Your task to perform on an android device: toggle translation in the chrome app Image 0: 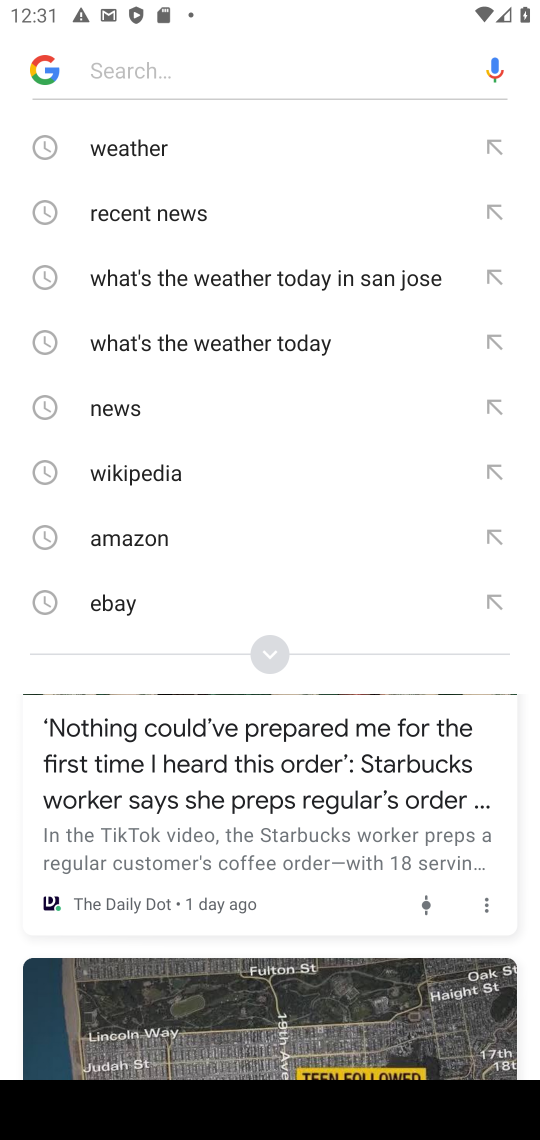
Step 0: press home button
Your task to perform on an android device: toggle translation in the chrome app Image 1: 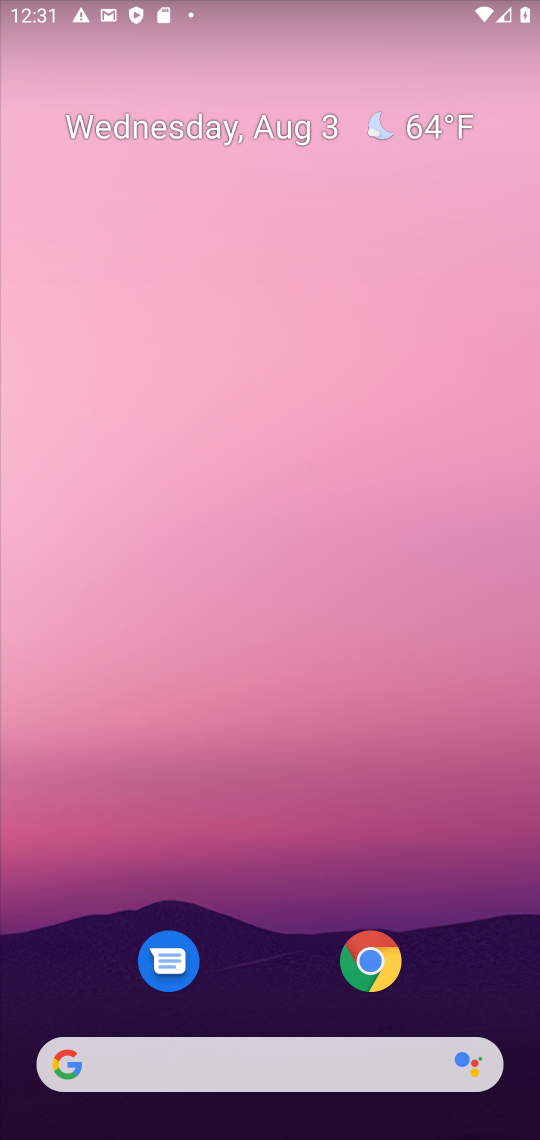
Step 1: click (369, 963)
Your task to perform on an android device: toggle translation in the chrome app Image 2: 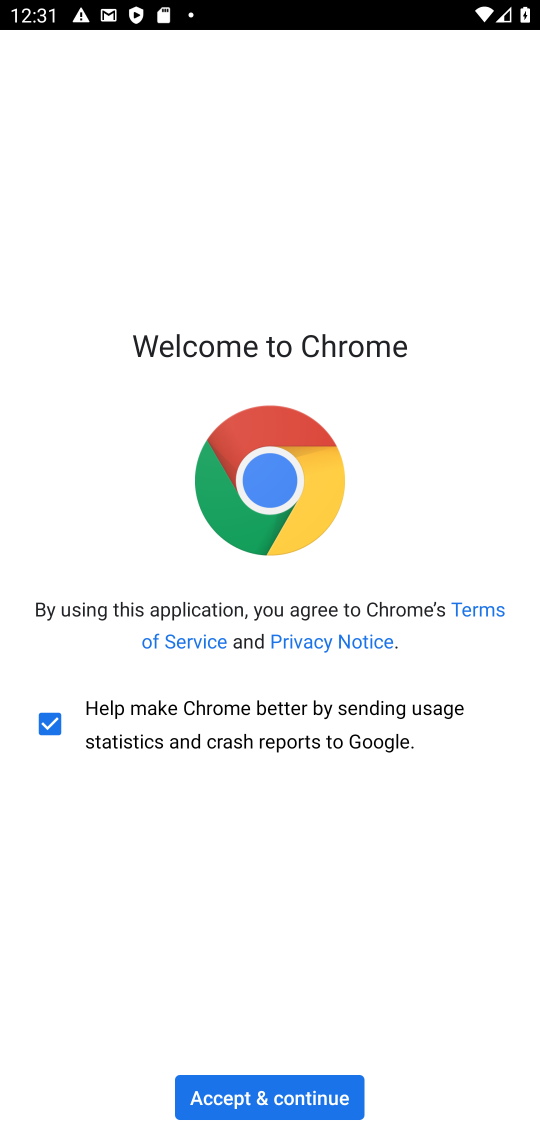
Step 2: click (279, 1101)
Your task to perform on an android device: toggle translation in the chrome app Image 3: 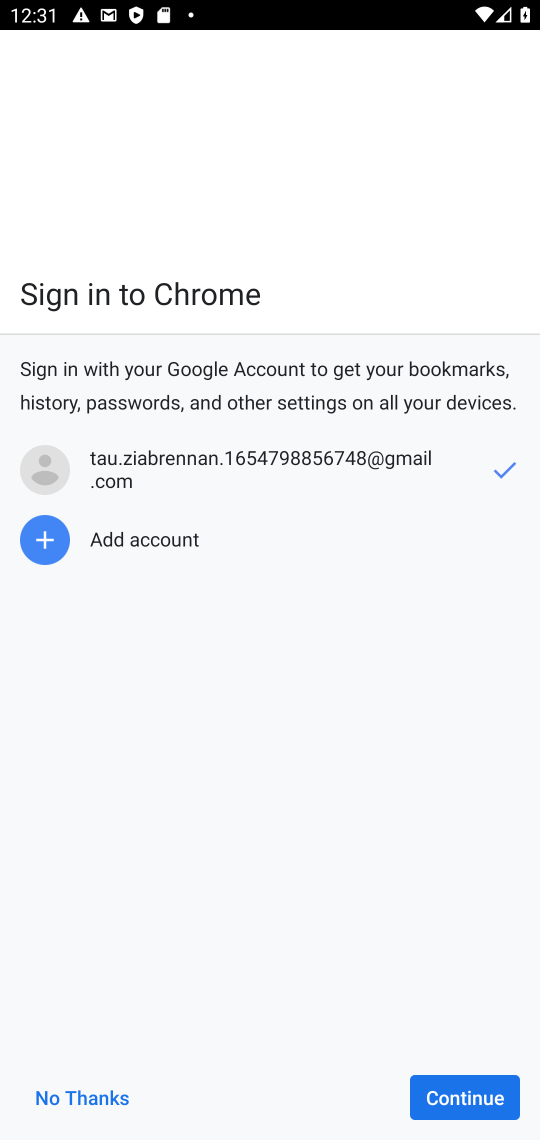
Step 3: click (103, 1110)
Your task to perform on an android device: toggle translation in the chrome app Image 4: 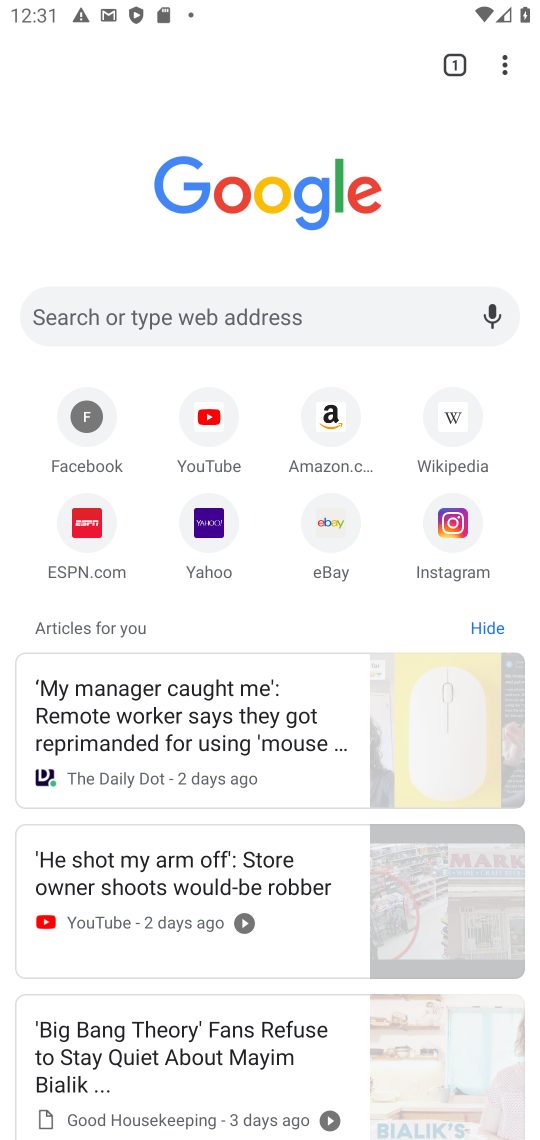
Step 4: drag from (505, 67) to (317, 552)
Your task to perform on an android device: toggle translation in the chrome app Image 5: 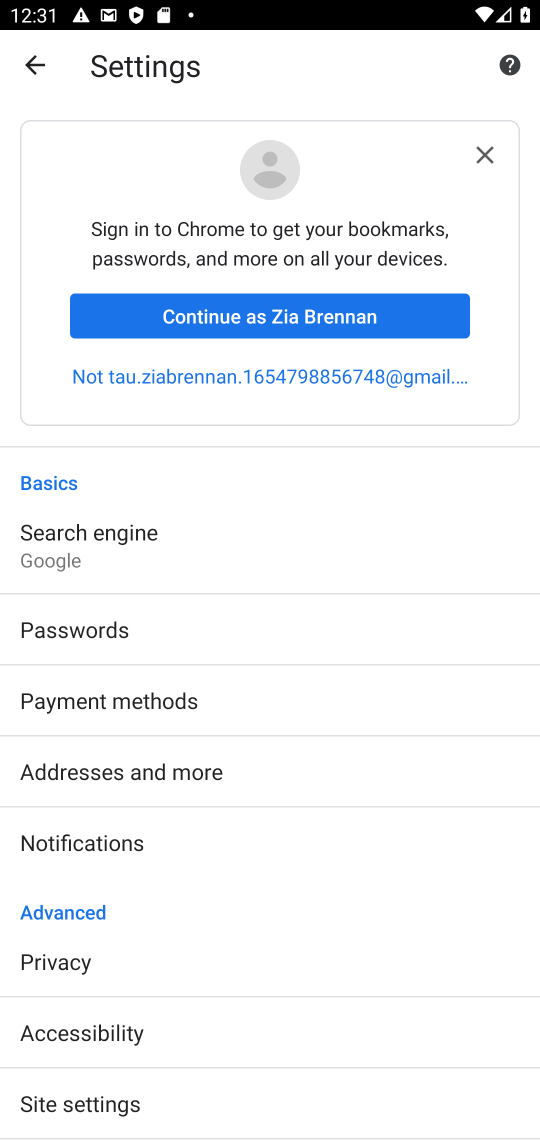
Step 5: drag from (299, 982) to (276, 472)
Your task to perform on an android device: toggle translation in the chrome app Image 6: 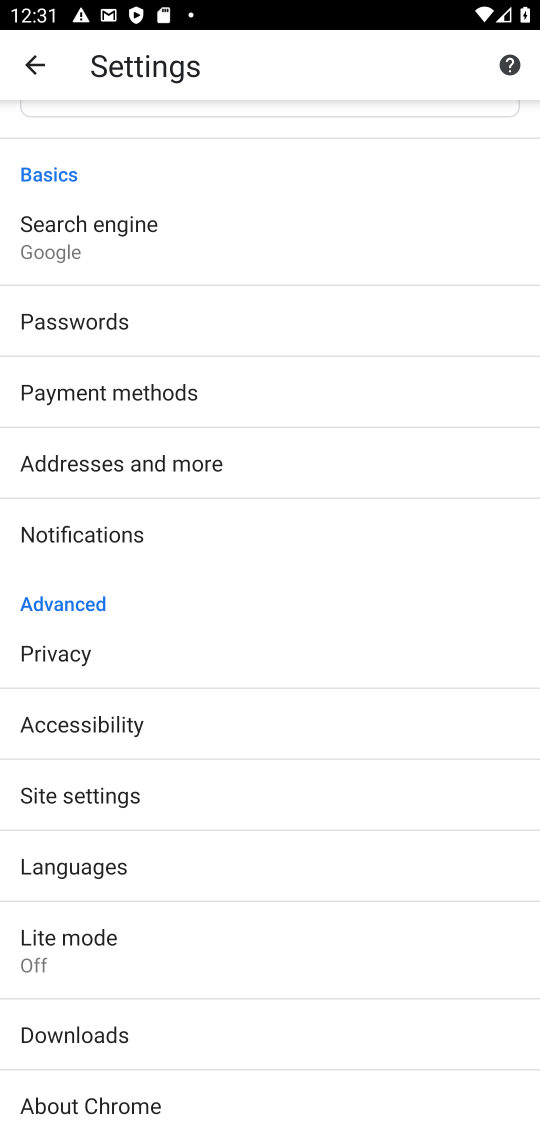
Step 6: click (33, 866)
Your task to perform on an android device: toggle translation in the chrome app Image 7: 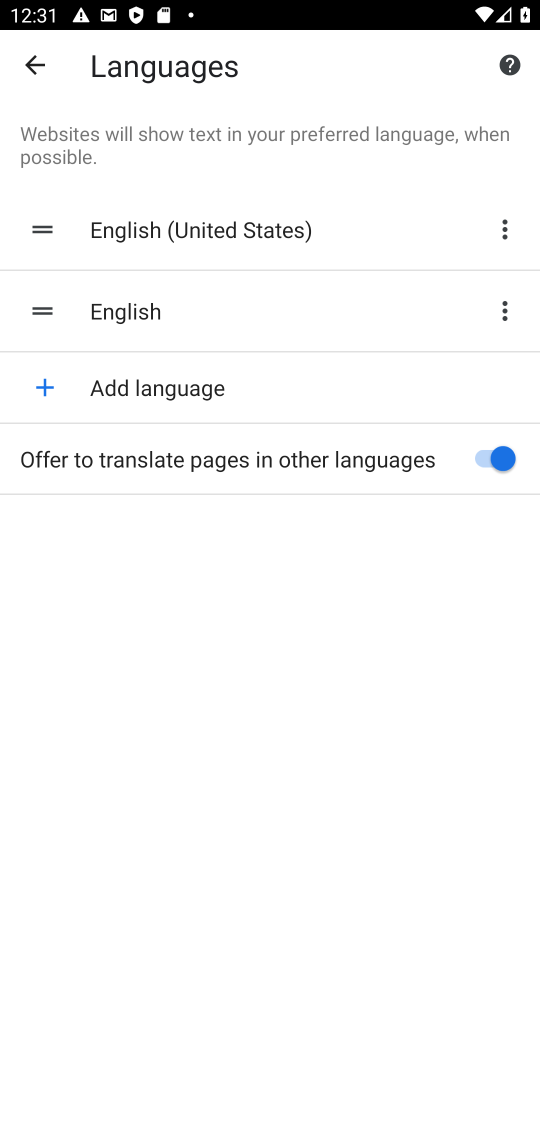
Step 7: click (497, 459)
Your task to perform on an android device: toggle translation in the chrome app Image 8: 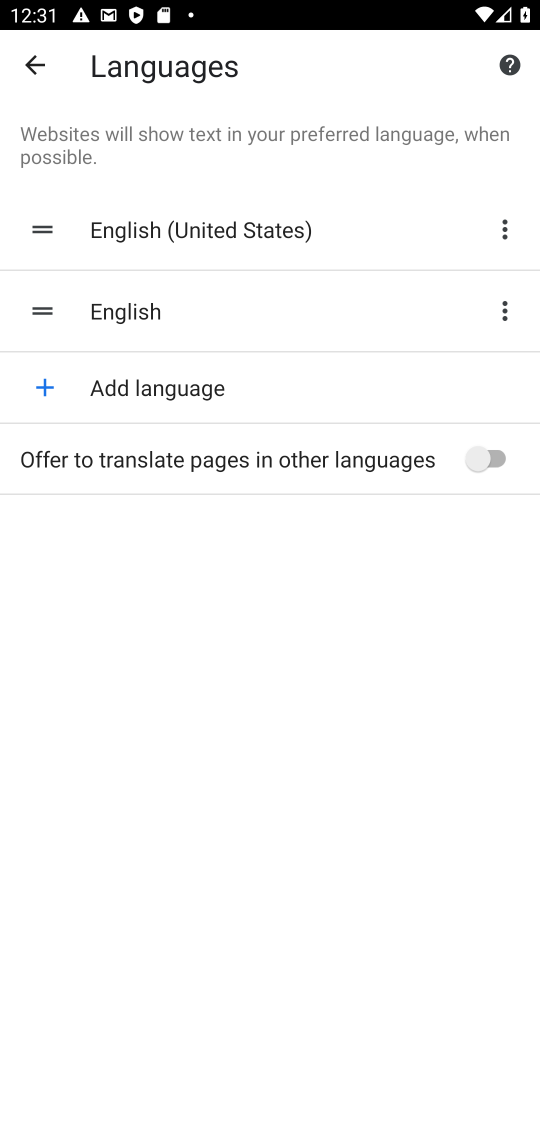
Step 8: task complete